Your task to perform on an android device: Search for "razer thresher" on newegg, select the first entry, and add it to the cart. Image 0: 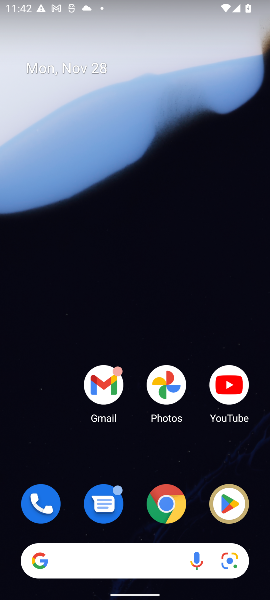
Step 0: click (170, 503)
Your task to perform on an android device: Search for "razer thresher" on newegg, select the first entry, and add it to the cart. Image 1: 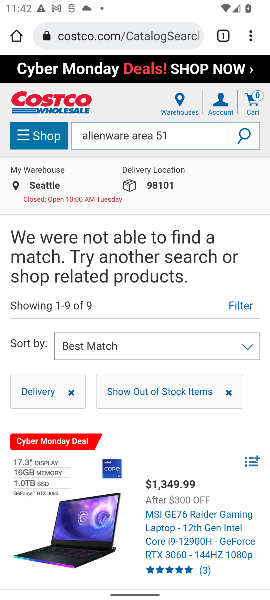
Step 1: click (124, 40)
Your task to perform on an android device: Search for "razer thresher" on newegg, select the first entry, and add it to the cart. Image 2: 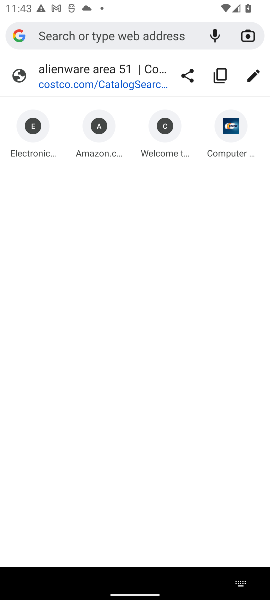
Step 2: click (223, 139)
Your task to perform on an android device: Search for "razer thresher" on newegg, select the first entry, and add it to the cart. Image 3: 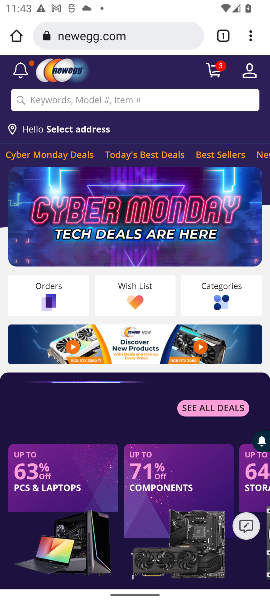
Step 3: click (89, 101)
Your task to perform on an android device: Search for "razer thresher" on newegg, select the first entry, and add it to the cart. Image 4: 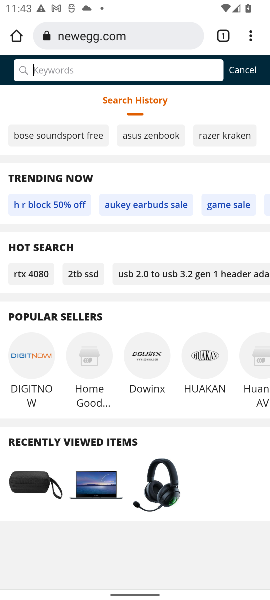
Step 4: click (89, 101)
Your task to perform on an android device: Search for "razer thresher" on newegg, select the first entry, and add it to the cart. Image 5: 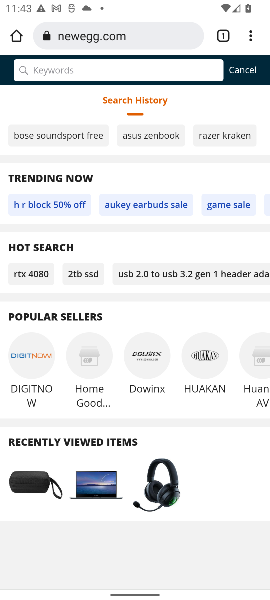
Step 5: type "razer thresher"
Your task to perform on an android device: Search for "razer thresher" on newegg, select the first entry, and add it to the cart. Image 6: 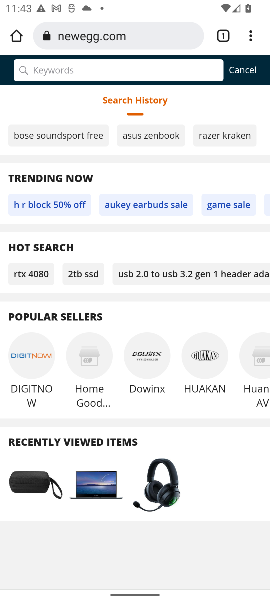
Step 6: click (51, 72)
Your task to perform on an android device: Search for "razer thresher" on newegg, select the first entry, and add it to the cart. Image 7: 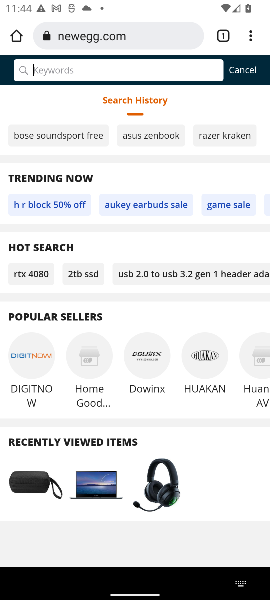
Step 7: type "razer thresher"
Your task to perform on an android device: Search for "razer thresher" on newegg, select the first entry, and add it to the cart. Image 8: 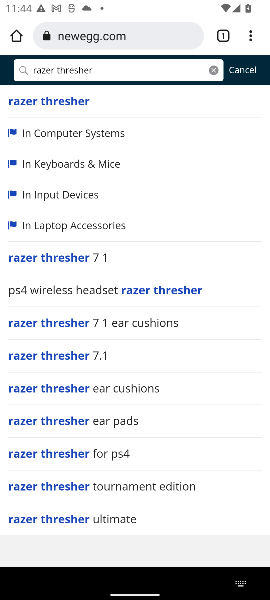
Step 8: click (57, 106)
Your task to perform on an android device: Search for "razer thresher" on newegg, select the first entry, and add it to the cart. Image 9: 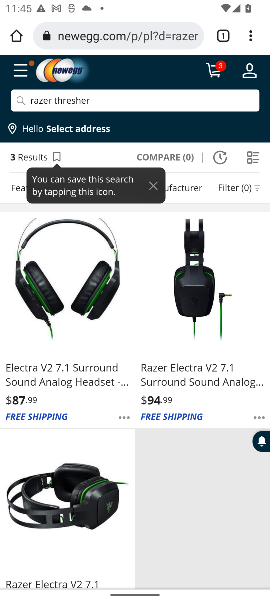
Step 9: task complete